Your task to perform on an android device: clear all cookies in the chrome app Image 0: 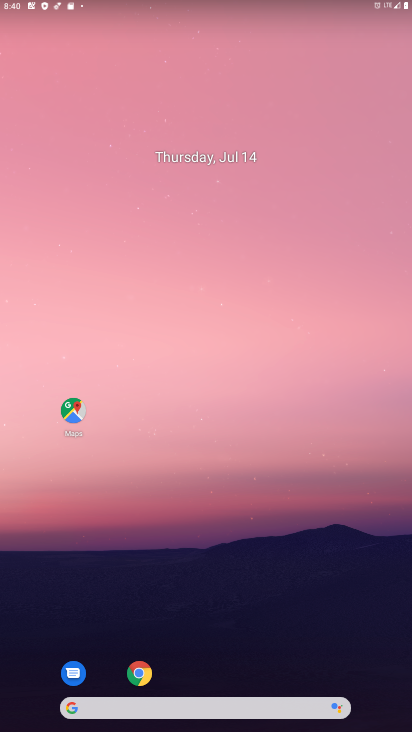
Step 0: click (140, 675)
Your task to perform on an android device: clear all cookies in the chrome app Image 1: 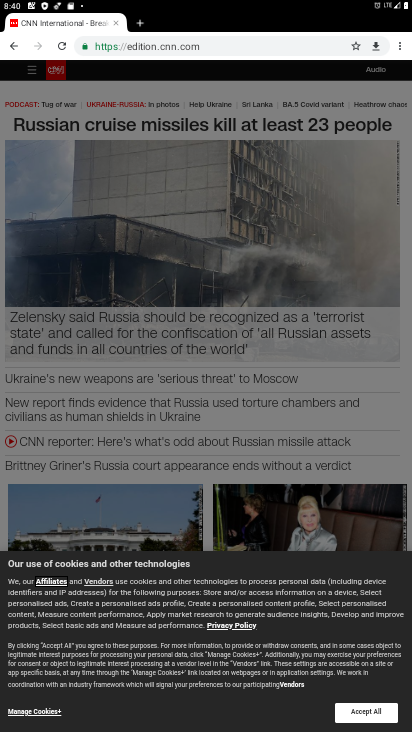
Step 1: click (401, 46)
Your task to perform on an android device: clear all cookies in the chrome app Image 2: 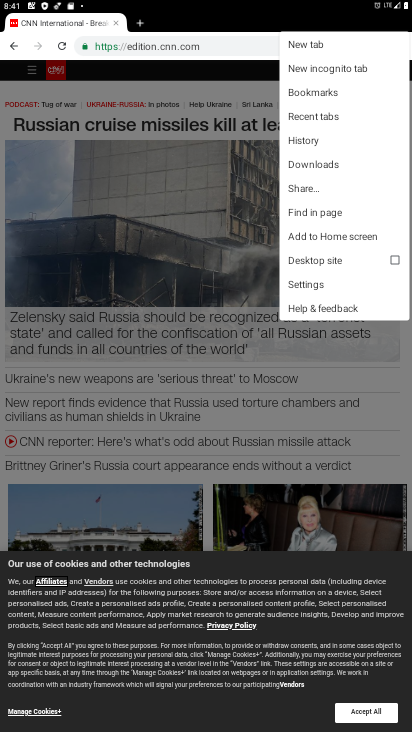
Step 2: click (312, 283)
Your task to perform on an android device: clear all cookies in the chrome app Image 3: 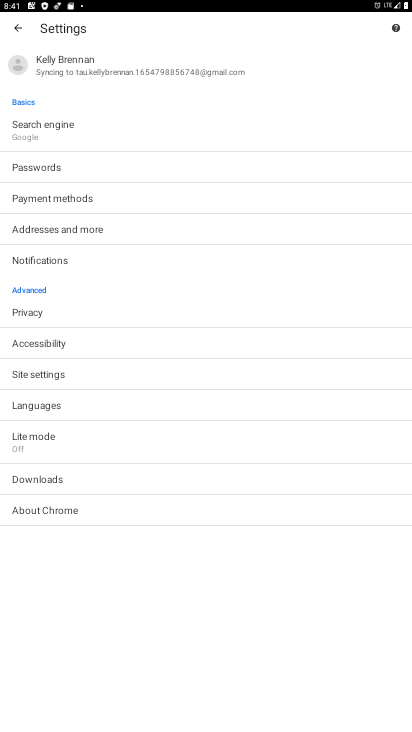
Step 3: click (32, 316)
Your task to perform on an android device: clear all cookies in the chrome app Image 4: 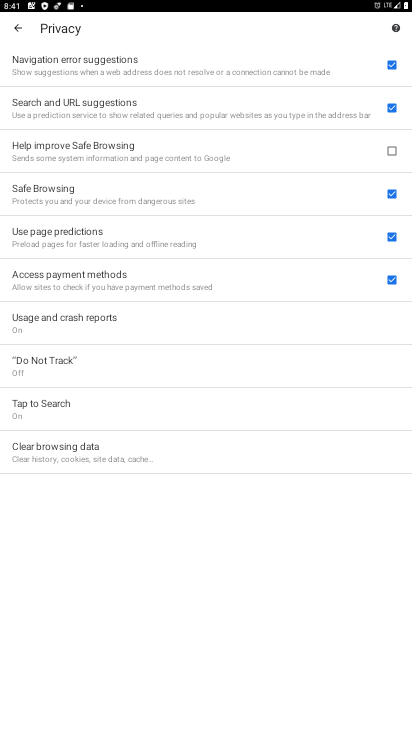
Step 4: click (70, 451)
Your task to perform on an android device: clear all cookies in the chrome app Image 5: 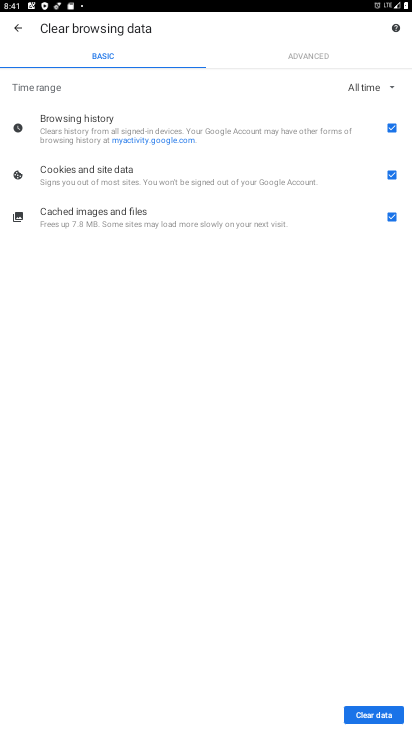
Step 5: click (390, 125)
Your task to perform on an android device: clear all cookies in the chrome app Image 6: 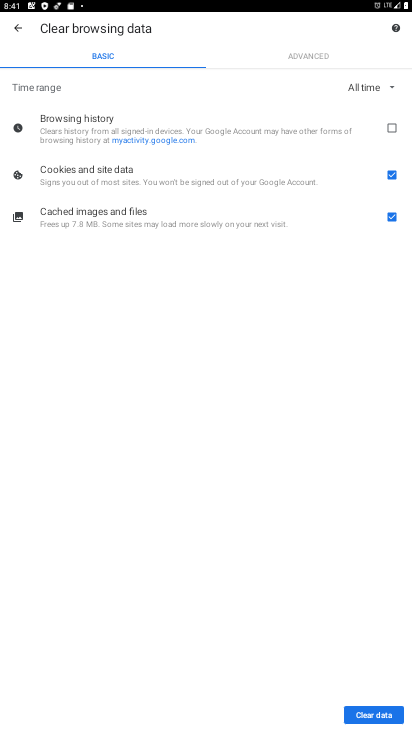
Step 6: click (393, 220)
Your task to perform on an android device: clear all cookies in the chrome app Image 7: 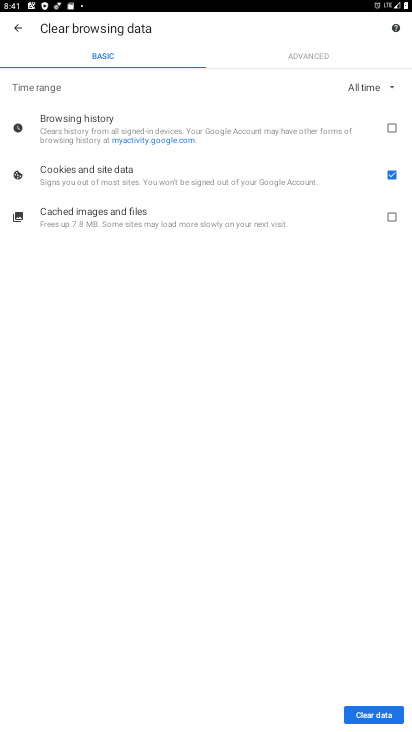
Step 7: click (377, 716)
Your task to perform on an android device: clear all cookies in the chrome app Image 8: 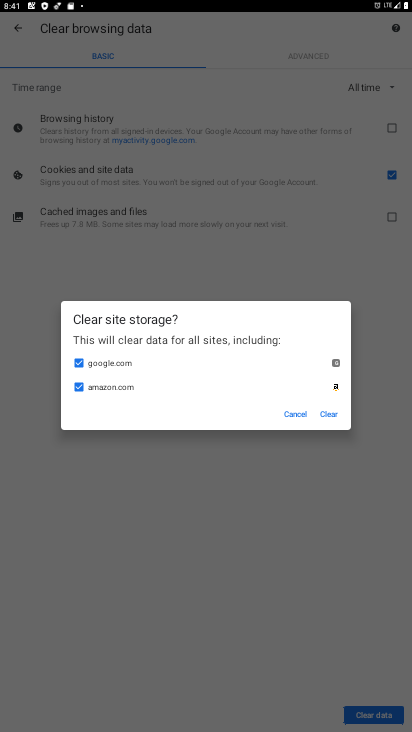
Step 8: click (331, 414)
Your task to perform on an android device: clear all cookies in the chrome app Image 9: 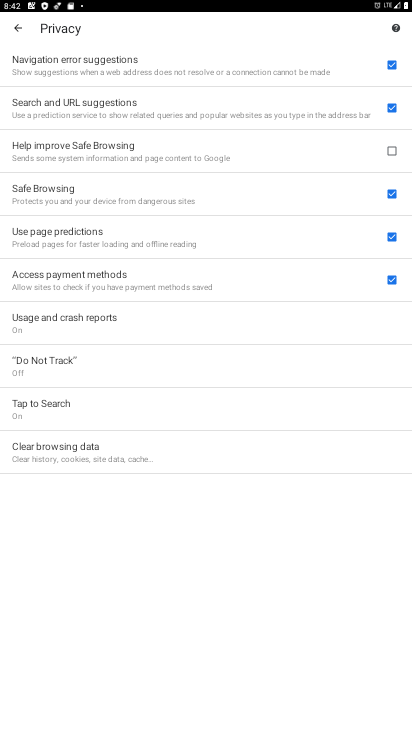
Step 9: task complete